Your task to perform on an android device: Show me the alarms in the clock app Image 0: 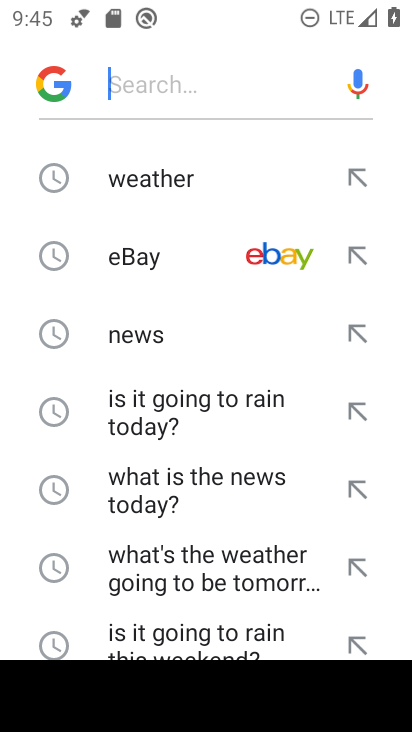
Step 0: press home button
Your task to perform on an android device: Show me the alarms in the clock app Image 1: 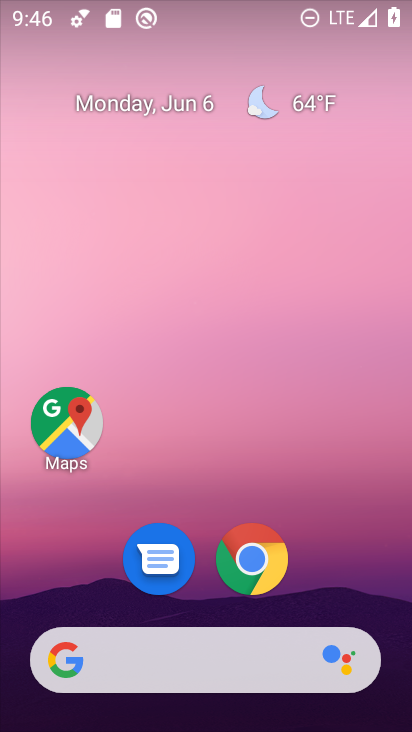
Step 1: drag from (234, 728) to (209, 148)
Your task to perform on an android device: Show me the alarms in the clock app Image 2: 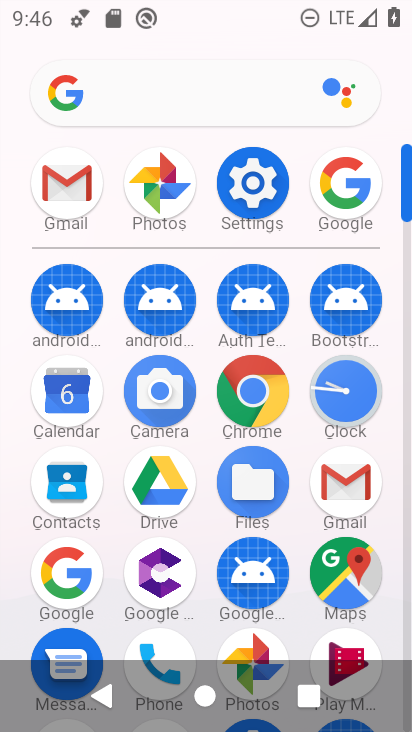
Step 2: click (350, 398)
Your task to perform on an android device: Show me the alarms in the clock app Image 3: 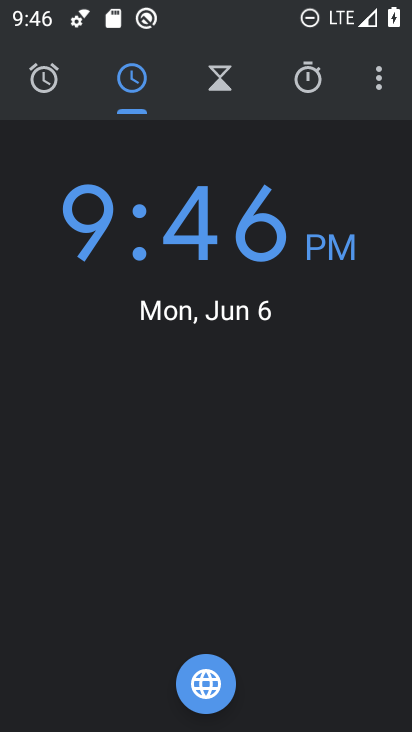
Step 3: click (46, 84)
Your task to perform on an android device: Show me the alarms in the clock app Image 4: 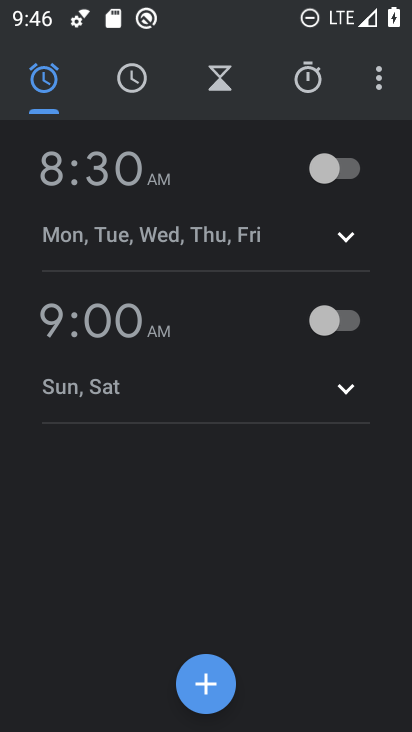
Step 4: task complete